Your task to perform on an android device: turn on the 12-hour format for clock Image 0: 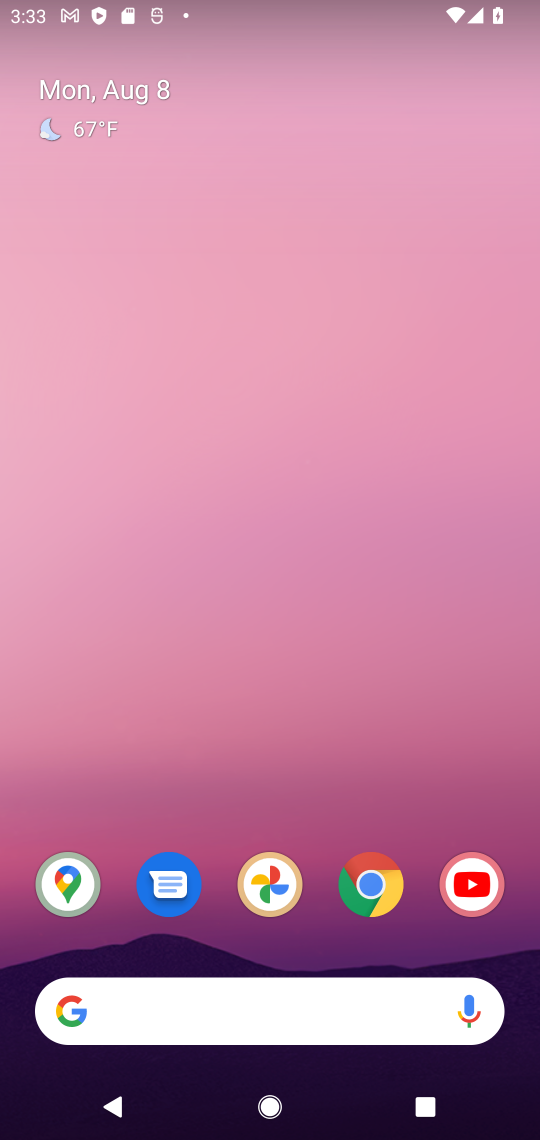
Step 0: drag from (277, 750) to (297, 0)
Your task to perform on an android device: turn on the 12-hour format for clock Image 1: 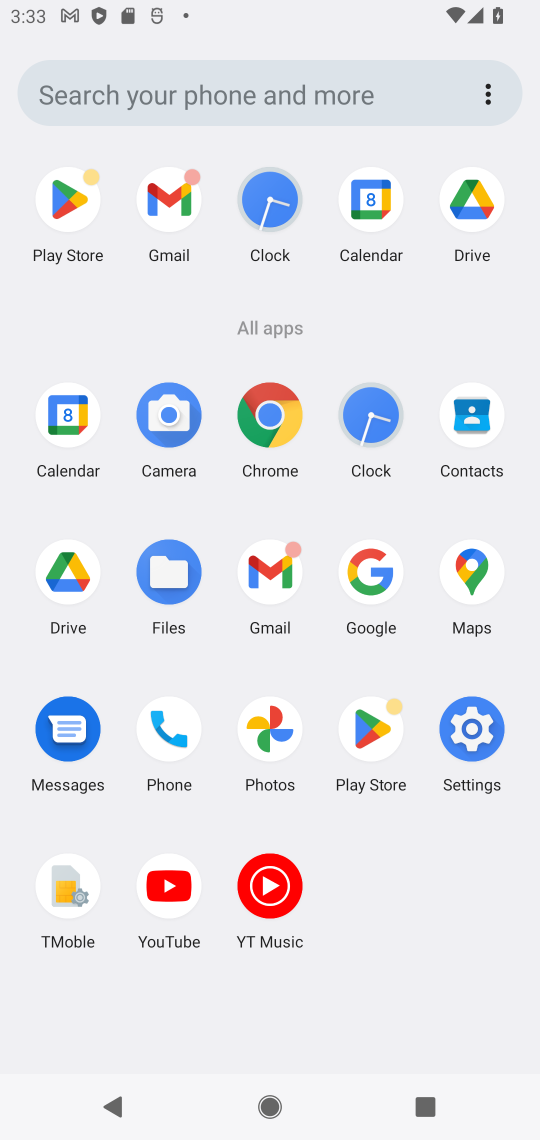
Step 1: click (282, 194)
Your task to perform on an android device: turn on the 12-hour format for clock Image 2: 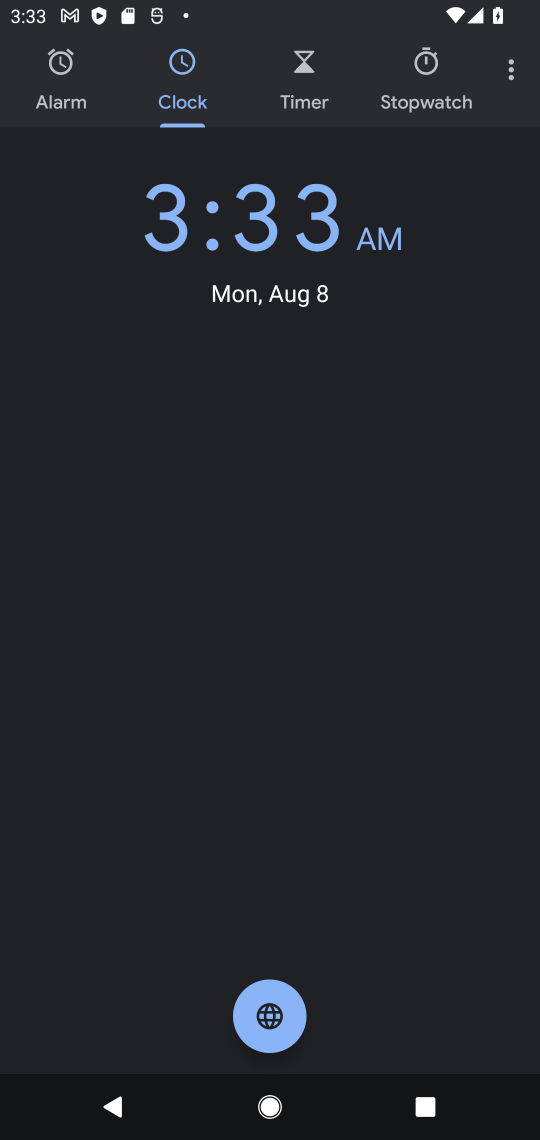
Step 2: click (513, 70)
Your task to perform on an android device: turn on the 12-hour format for clock Image 3: 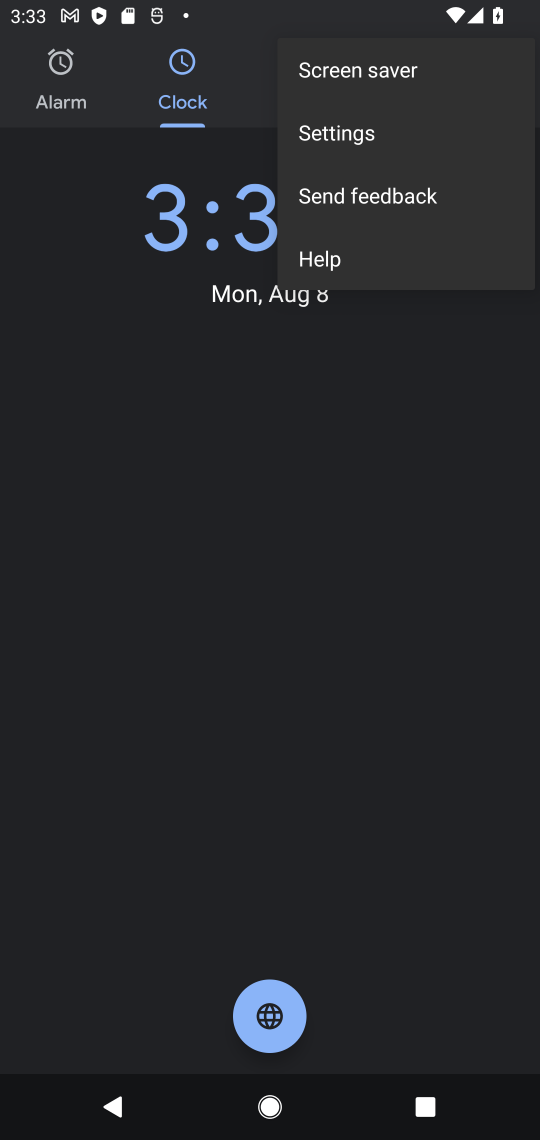
Step 3: click (407, 126)
Your task to perform on an android device: turn on the 12-hour format for clock Image 4: 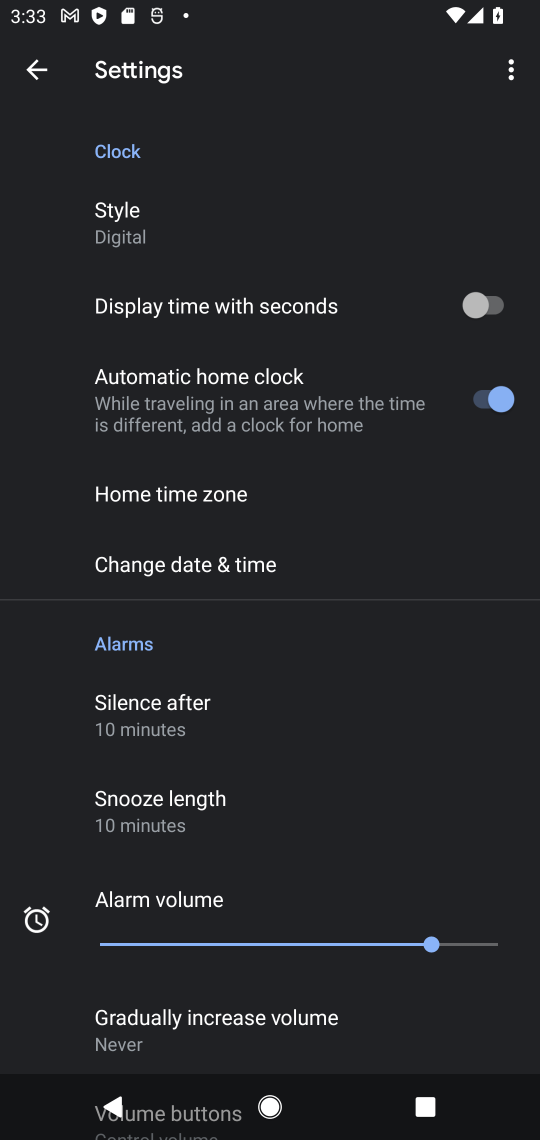
Step 4: click (326, 561)
Your task to perform on an android device: turn on the 12-hour format for clock Image 5: 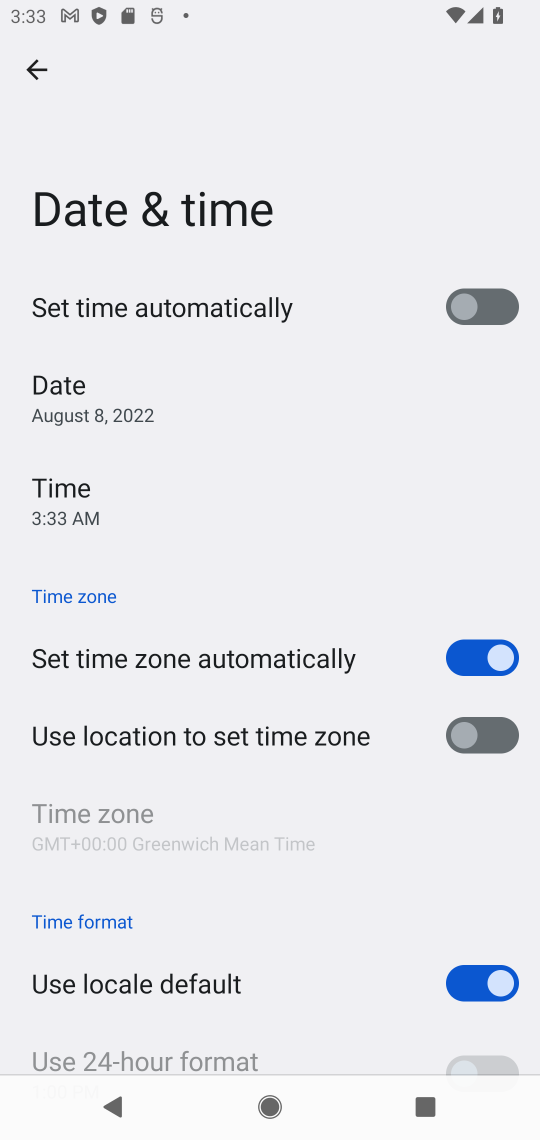
Step 5: task complete